Your task to perform on an android device: change text size in settings app Image 0: 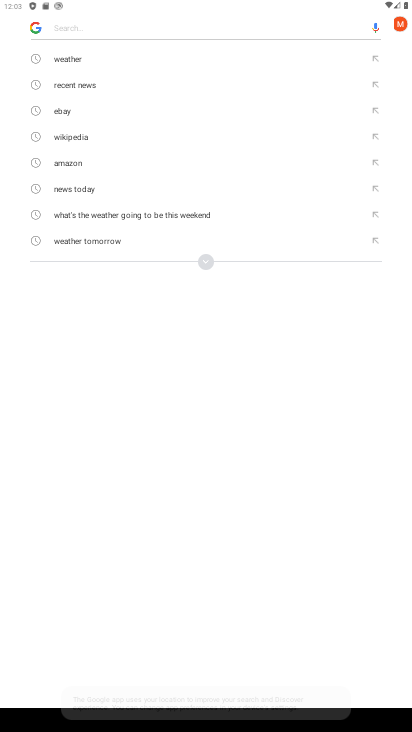
Step 0: press home button
Your task to perform on an android device: change text size in settings app Image 1: 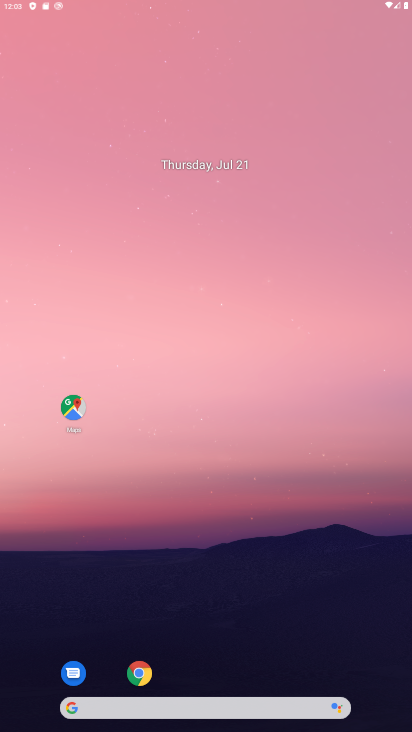
Step 1: press home button
Your task to perform on an android device: change text size in settings app Image 2: 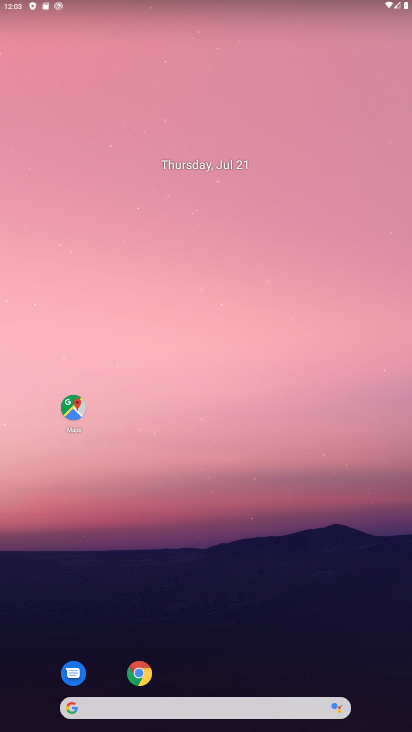
Step 2: click (187, 624)
Your task to perform on an android device: change text size in settings app Image 3: 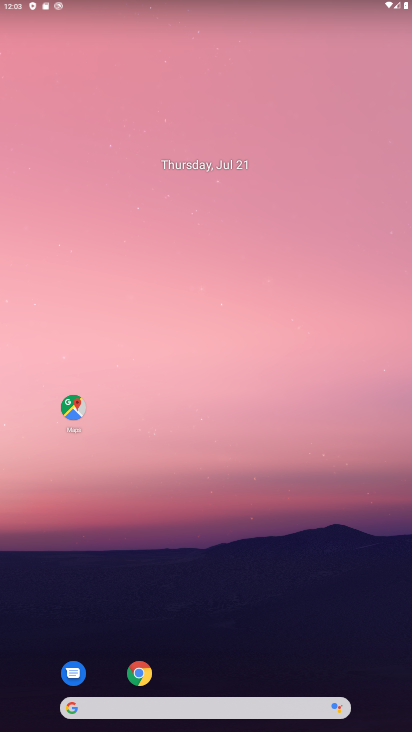
Step 3: drag from (294, 663) to (278, 132)
Your task to perform on an android device: change text size in settings app Image 4: 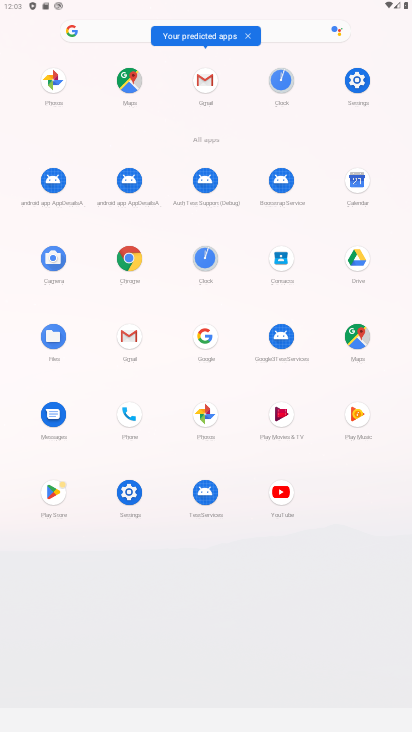
Step 4: click (351, 75)
Your task to perform on an android device: change text size in settings app Image 5: 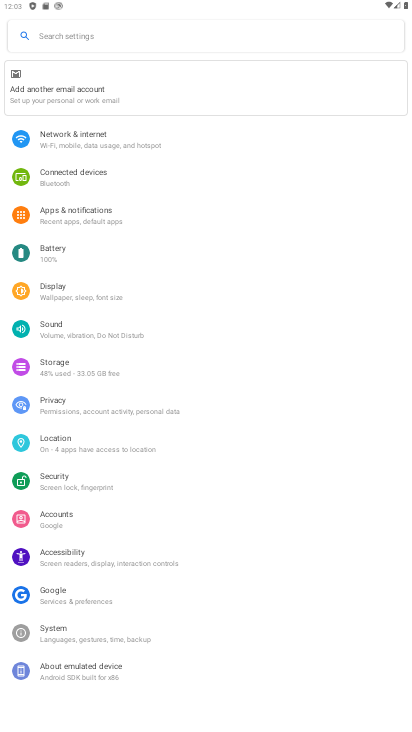
Step 5: click (80, 638)
Your task to perform on an android device: change text size in settings app Image 6: 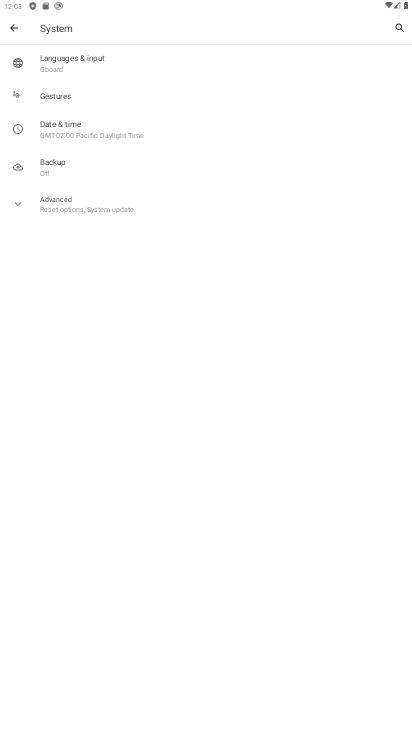
Step 6: click (12, 25)
Your task to perform on an android device: change text size in settings app Image 7: 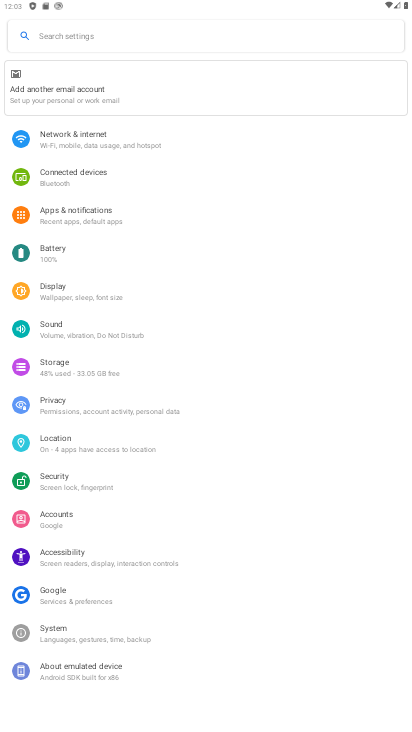
Step 7: click (79, 568)
Your task to perform on an android device: change text size in settings app Image 8: 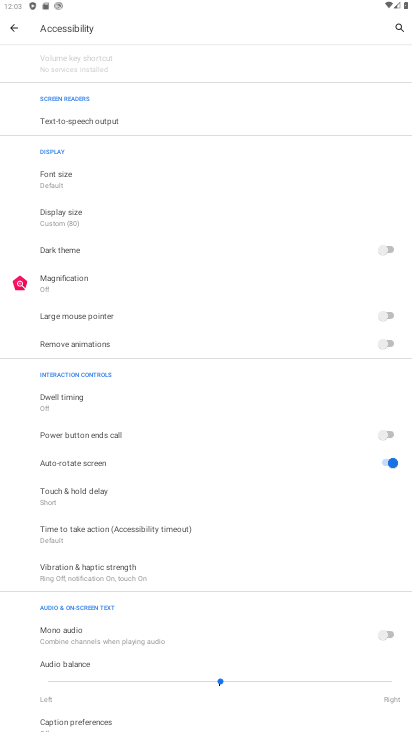
Step 8: click (63, 174)
Your task to perform on an android device: change text size in settings app Image 9: 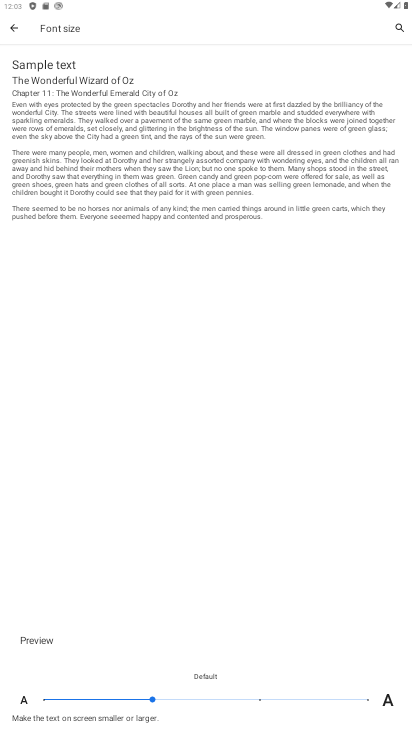
Step 9: click (258, 691)
Your task to perform on an android device: change text size in settings app Image 10: 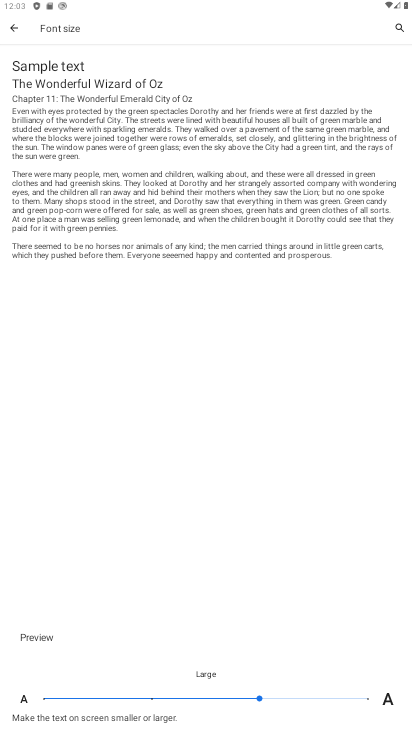
Step 10: task complete